Your task to perform on an android device: toggle improve location accuracy Image 0: 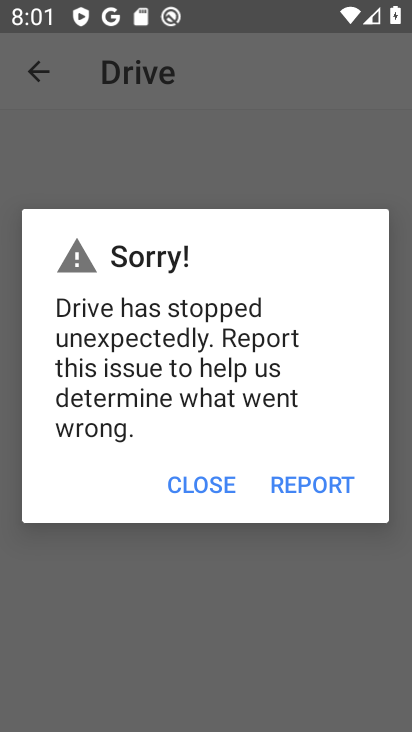
Step 0: press home button
Your task to perform on an android device: toggle improve location accuracy Image 1: 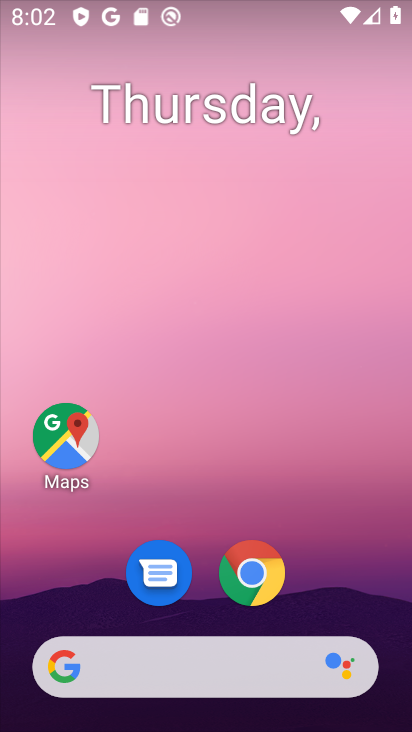
Step 1: drag from (380, 569) to (333, 115)
Your task to perform on an android device: toggle improve location accuracy Image 2: 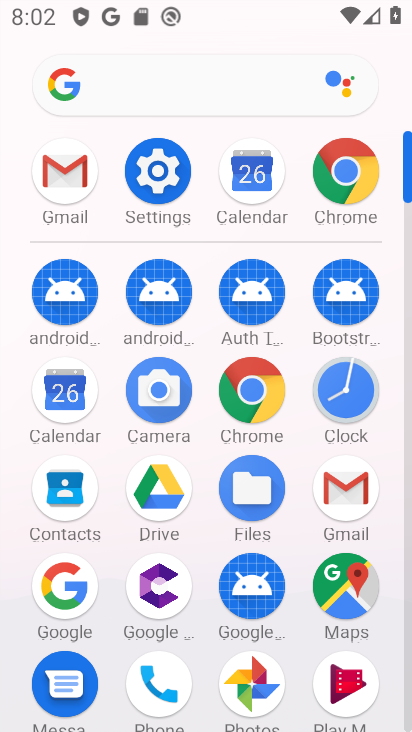
Step 2: click (160, 204)
Your task to perform on an android device: toggle improve location accuracy Image 3: 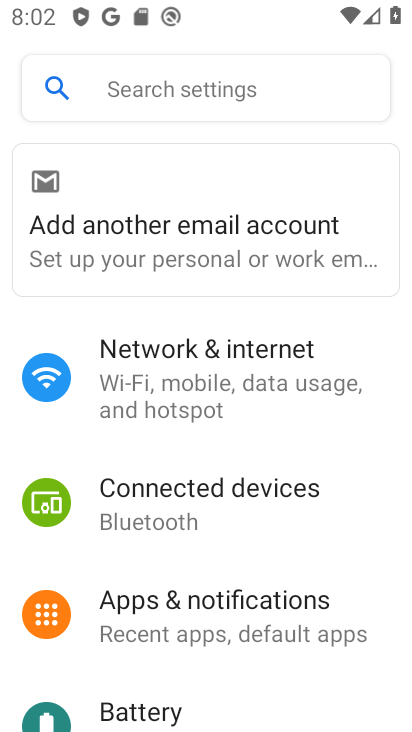
Step 3: drag from (262, 606) to (256, 319)
Your task to perform on an android device: toggle improve location accuracy Image 4: 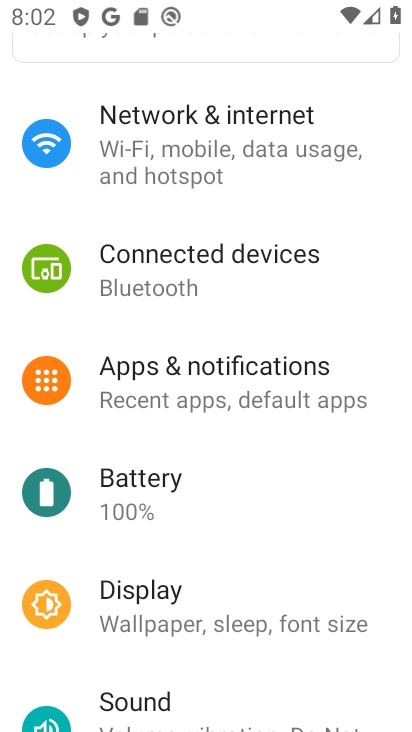
Step 4: drag from (252, 579) to (281, 224)
Your task to perform on an android device: toggle improve location accuracy Image 5: 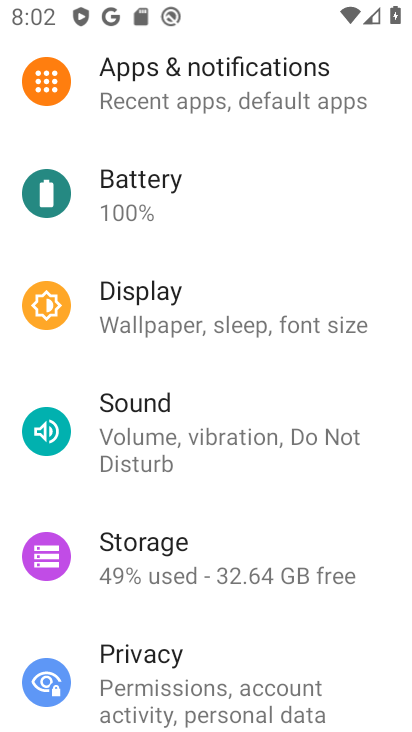
Step 5: drag from (256, 607) to (283, 250)
Your task to perform on an android device: toggle improve location accuracy Image 6: 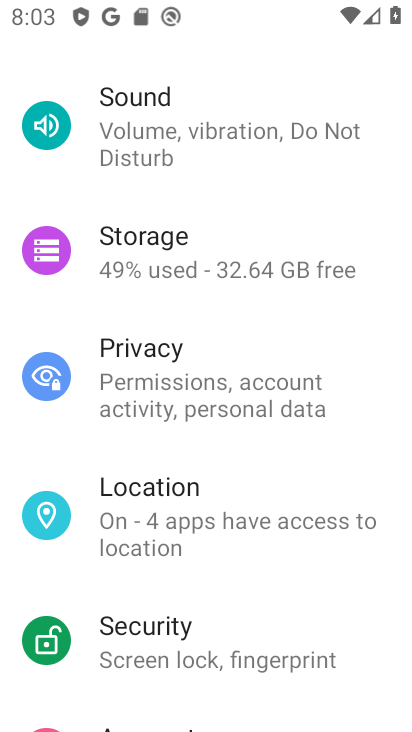
Step 6: drag from (232, 554) to (243, 215)
Your task to perform on an android device: toggle improve location accuracy Image 7: 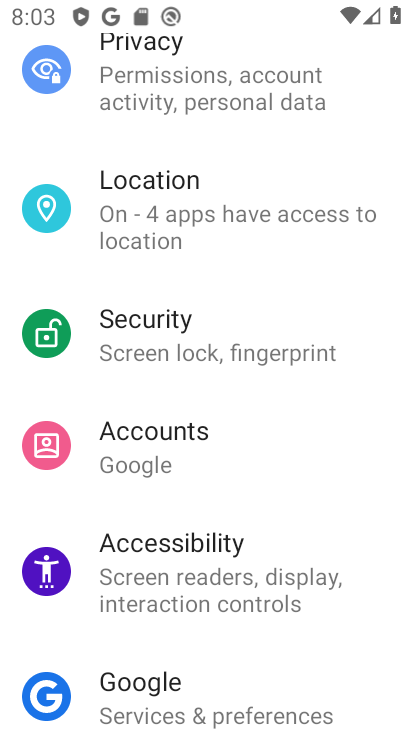
Step 7: drag from (275, 542) to (259, 208)
Your task to perform on an android device: toggle improve location accuracy Image 8: 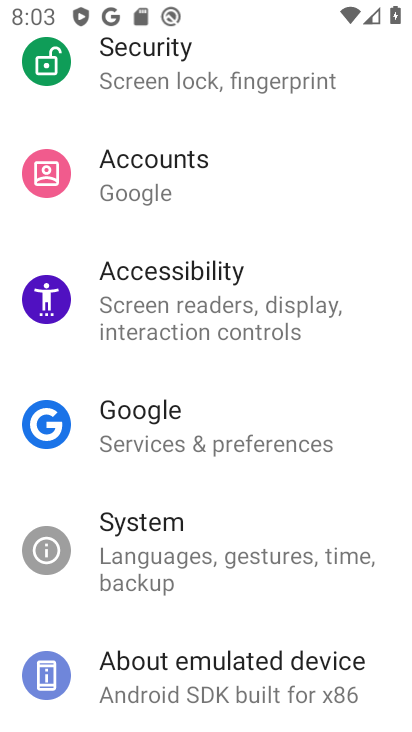
Step 8: drag from (301, 596) to (301, 189)
Your task to perform on an android device: toggle improve location accuracy Image 9: 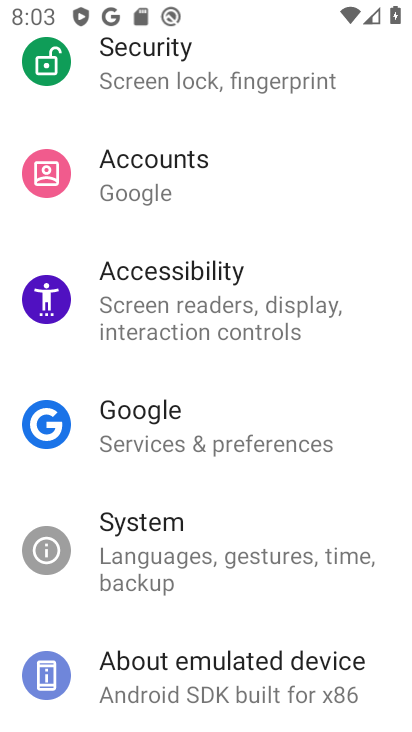
Step 9: drag from (195, 297) to (180, 540)
Your task to perform on an android device: toggle improve location accuracy Image 10: 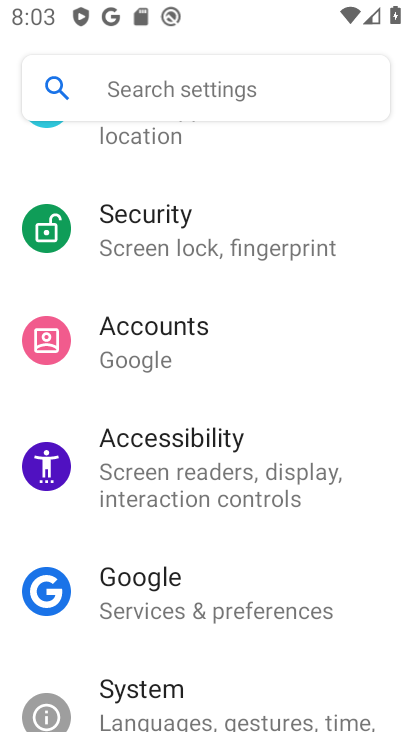
Step 10: drag from (158, 326) to (165, 521)
Your task to perform on an android device: toggle improve location accuracy Image 11: 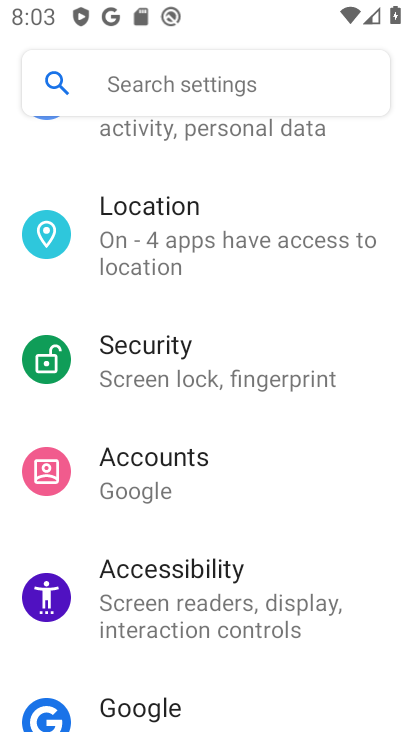
Step 11: click (161, 249)
Your task to perform on an android device: toggle improve location accuracy Image 12: 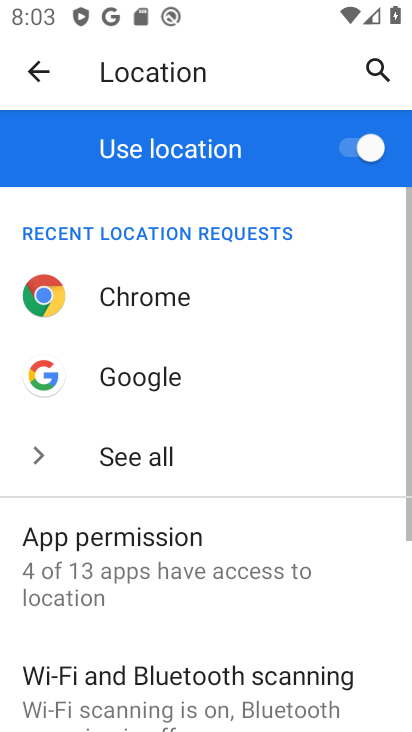
Step 12: drag from (191, 568) to (238, 238)
Your task to perform on an android device: toggle improve location accuracy Image 13: 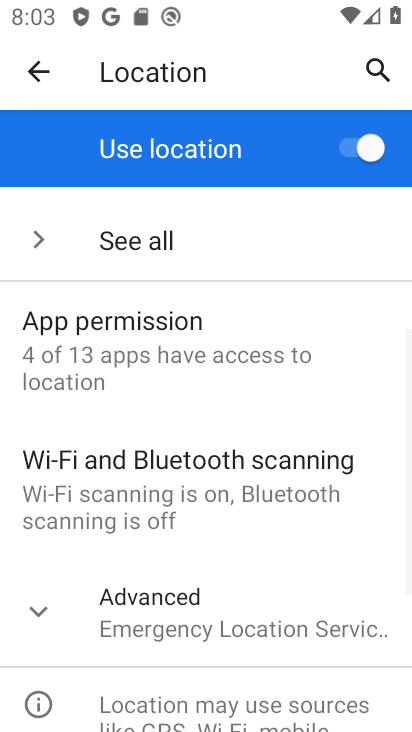
Step 13: drag from (275, 591) to (277, 323)
Your task to perform on an android device: toggle improve location accuracy Image 14: 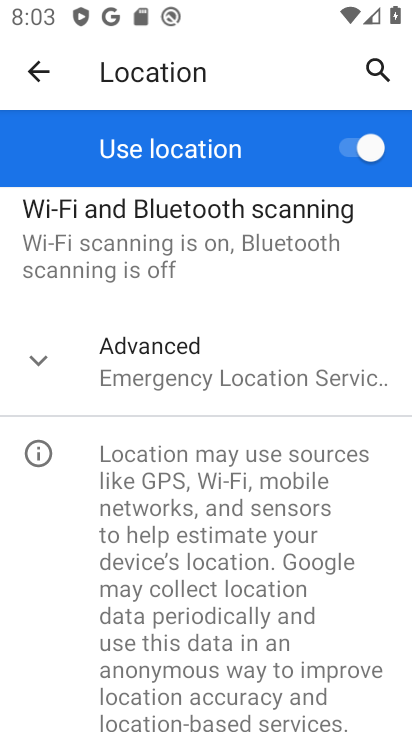
Step 14: click (274, 371)
Your task to perform on an android device: toggle improve location accuracy Image 15: 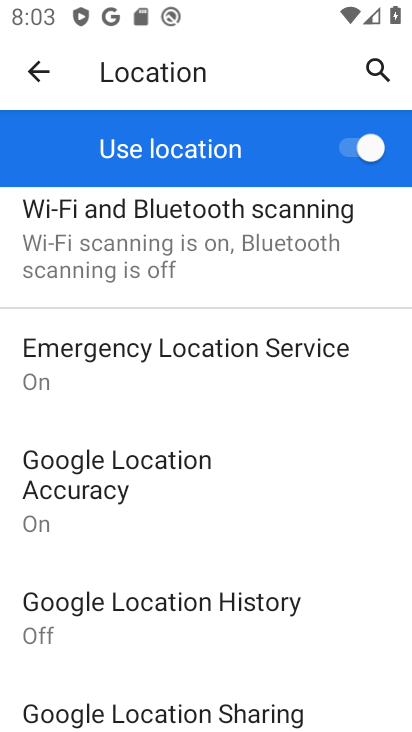
Step 15: drag from (261, 545) to (278, 458)
Your task to perform on an android device: toggle improve location accuracy Image 16: 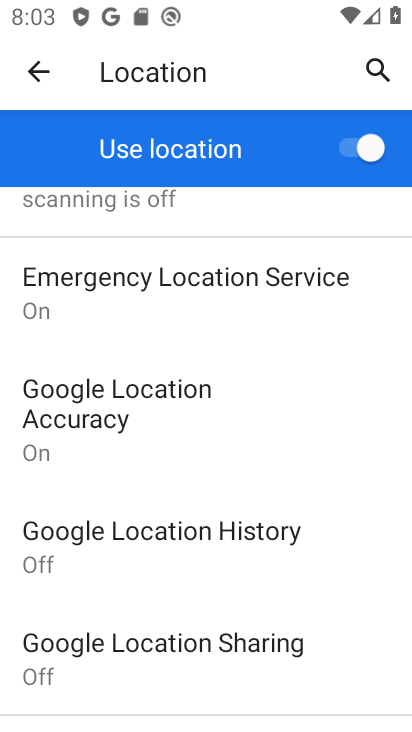
Step 16: click (155, 404)
Your task to perform on an android device: toggle improve location accuracy Image 17: 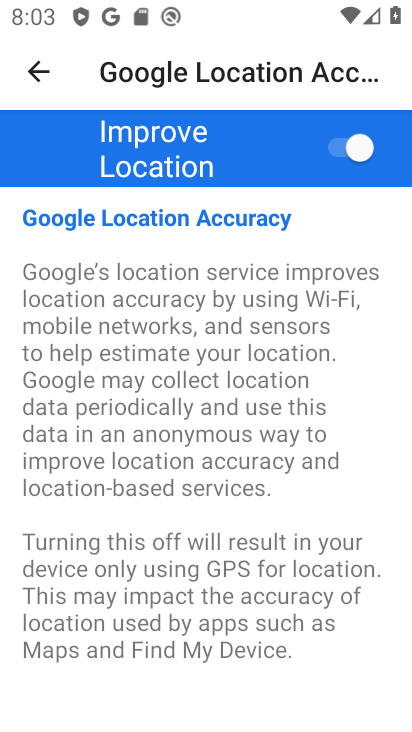
Step 17: click (338, 154)
Your task to perform on an android device: toggle improve location accuracy Image 18: 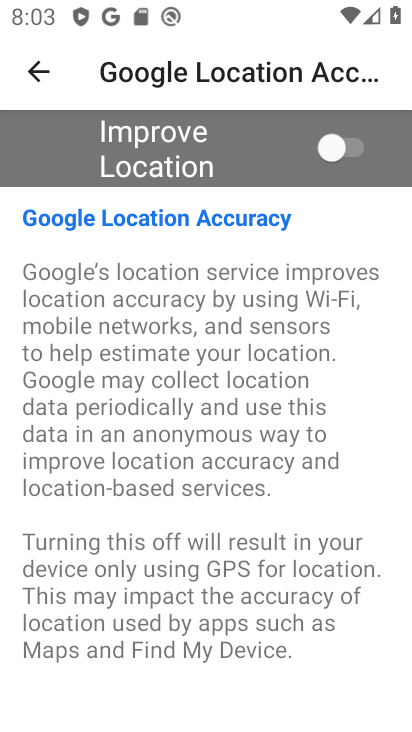
Step 18: task complete